Your task to perform on an android device: Open eBay Image 0: 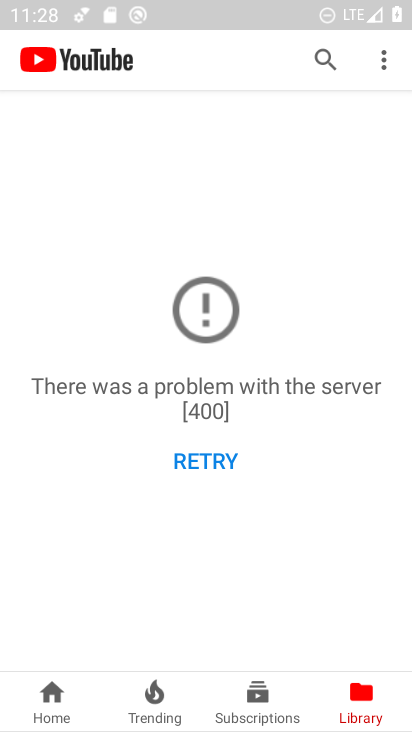
Step 0: press back button
Your task to perform on an android device: Open eBay Image 1: 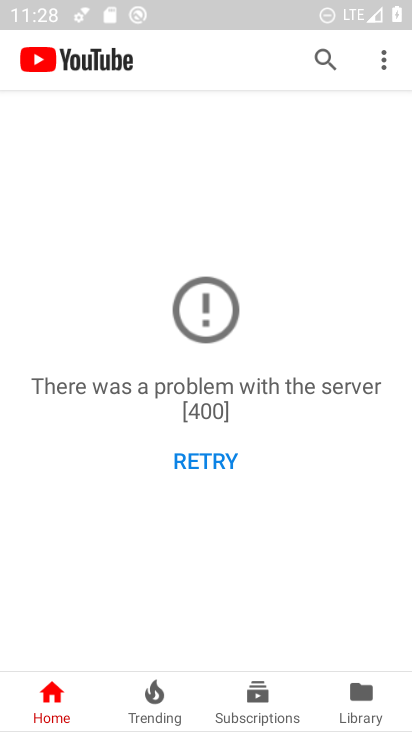
Step 1: press back button
Your task to perform on an android device: Open eBay Image 2: 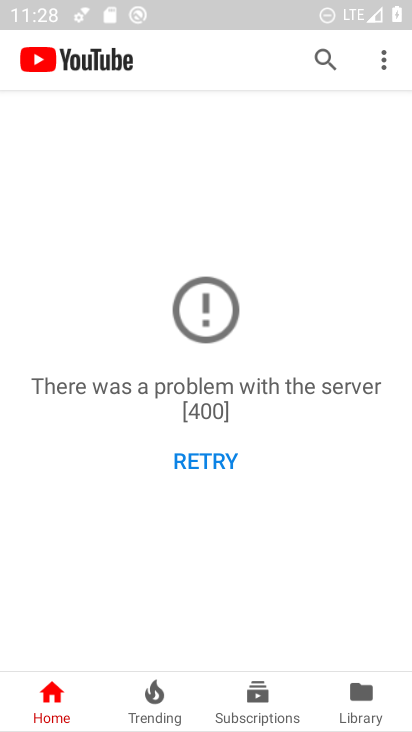
Step 2: press back button
Your task to perform on an android device: Open eBay Image 3: 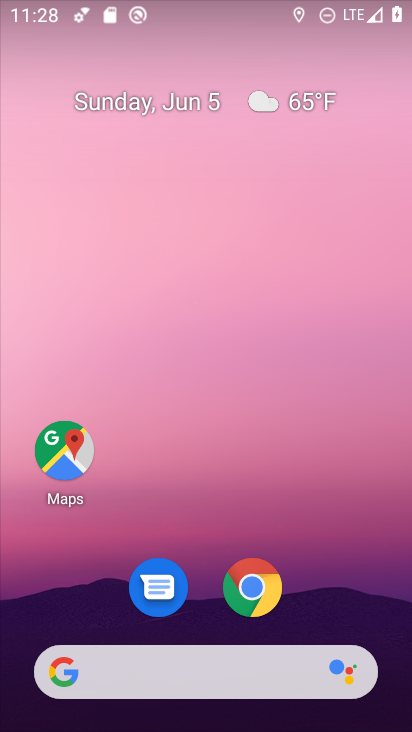
Step 3: click (243, 590)
Your task to perform on an android device: Open eBay Image 4: 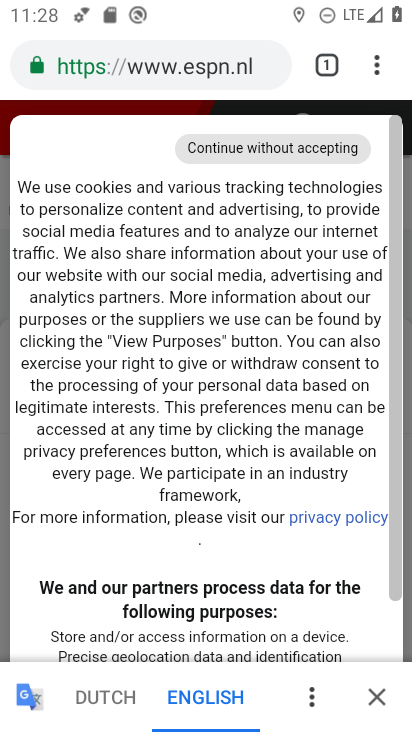
Step 4: click (308, 65)
Your task to perform on an android device: Open eBay Image 5: 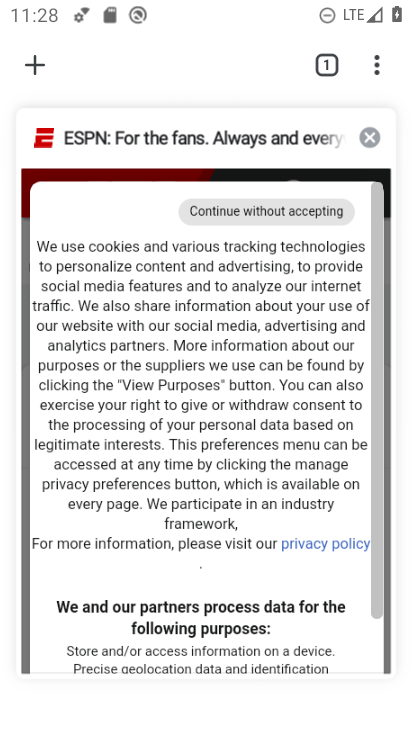
Step 5: click (22, 63)
Your task to perform on an android device: Open eBay Image 6: 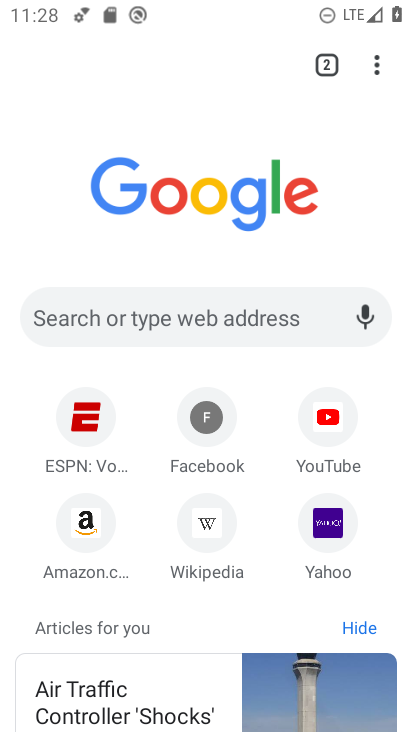
Step 6: click (155, 297)
Your task to perform on an android device: Open eBay Image 7: 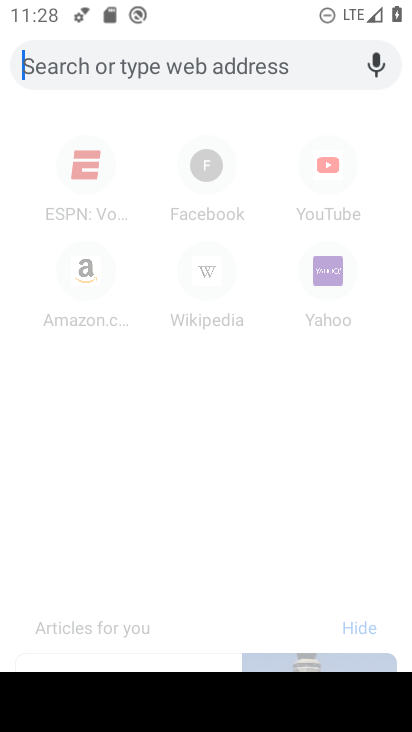
Step 7: type "ebay"
Your task to perform on an android device: Open eBay Image 8: 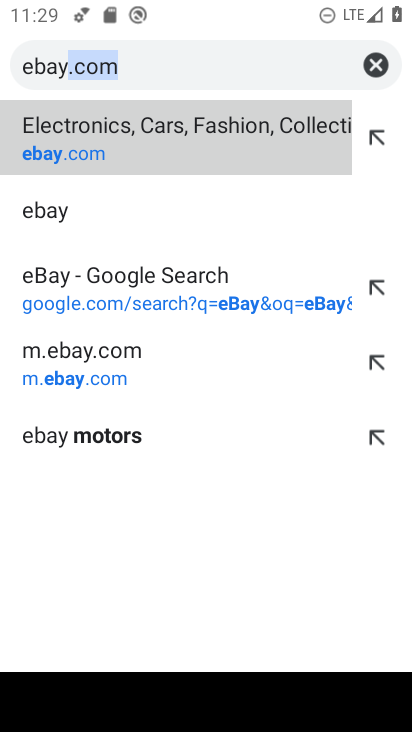
Step 8: click (180, 141)
Your task to perform on an android device: Open eBay Image 9: 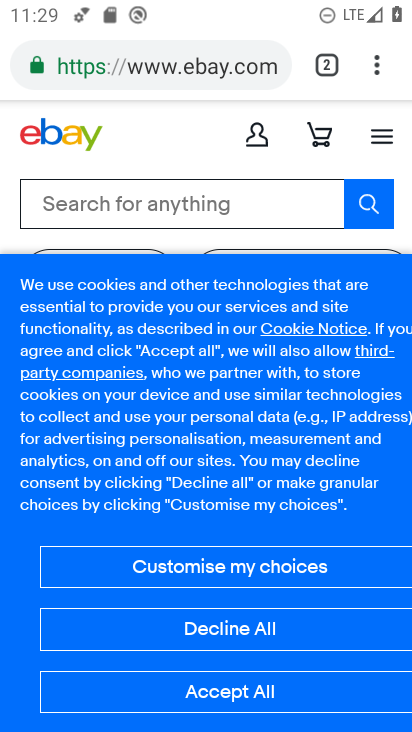
Step 9: task complete